Your task to perform on an android device: open app "Facebook Messenger" Image 0: 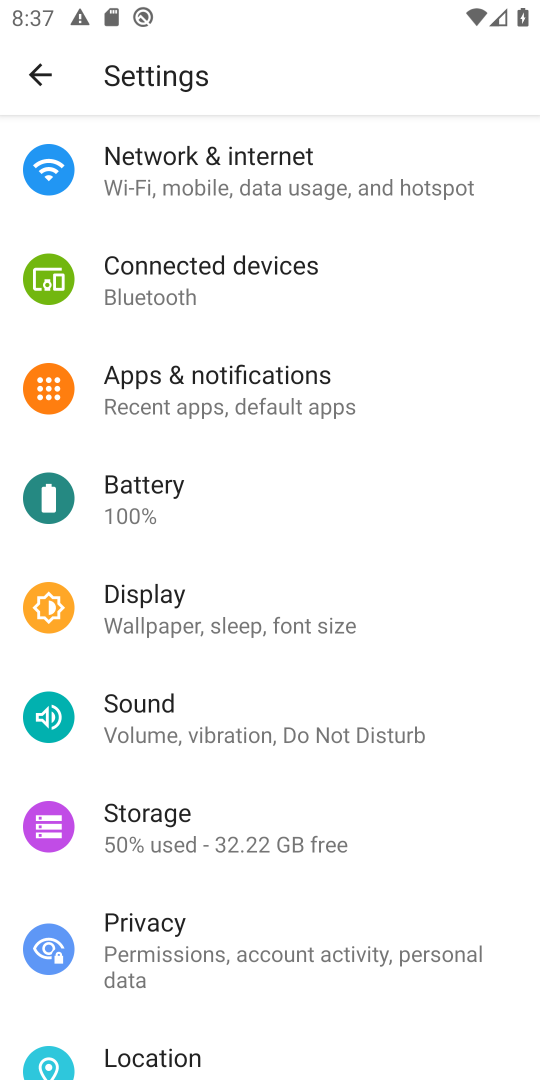
Step 0: press home button
Your task to perform on an android device: open app "Facebook Messenger" Image 1: 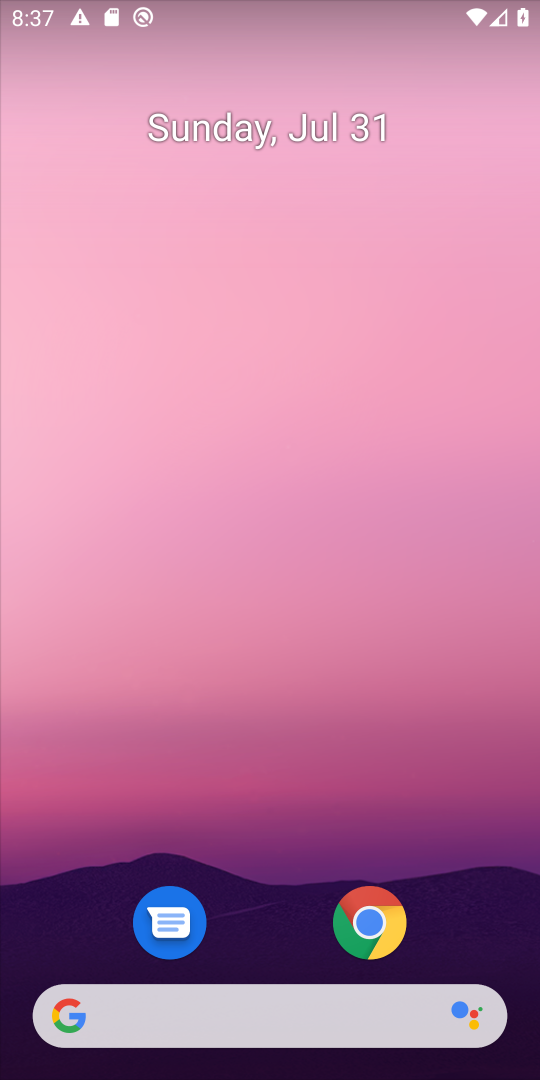
Step 1: drag from (298, 918) to (311, 386)
Your task to perform on an android device: open app "Facebook Messenger" Image 2: 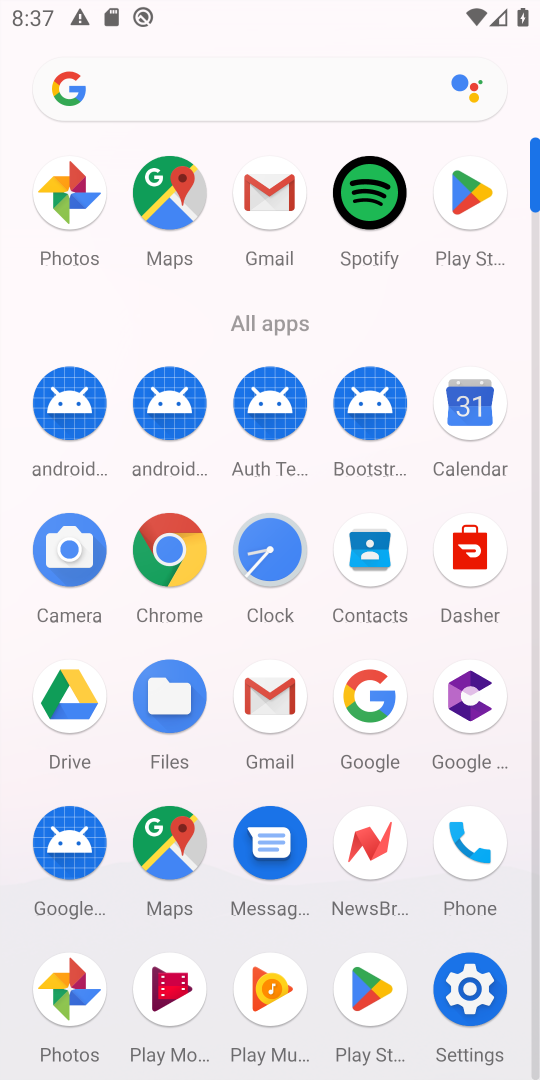
Step 2: drag from (402, 909) to (405, 491)
Your task to perform on an android device: open app "Facebook Messenger" Image 3: 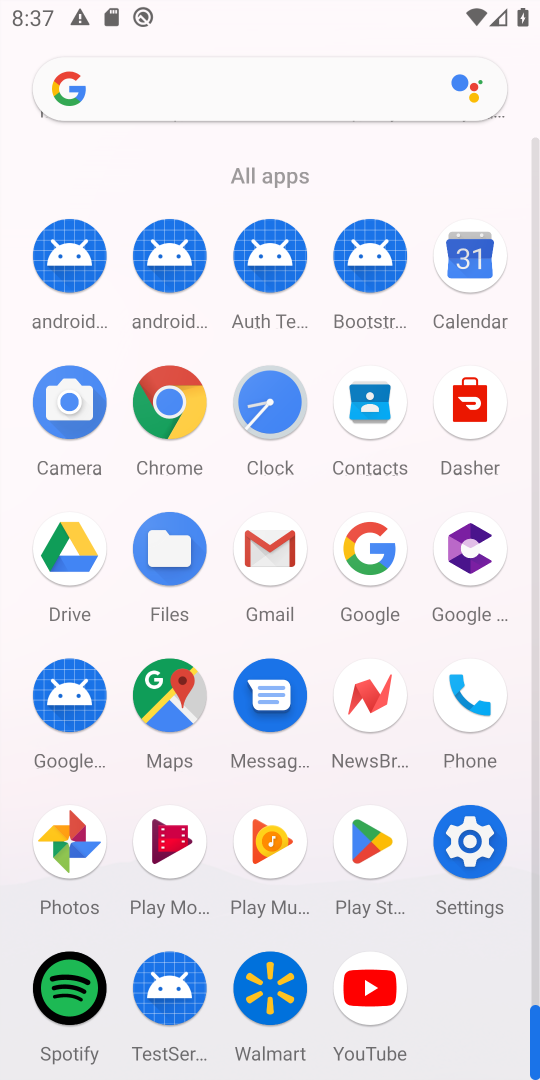
Step 3: click (378, 839)
Your task to perform on an android device: open app "Facebook Messenger" Image 4: 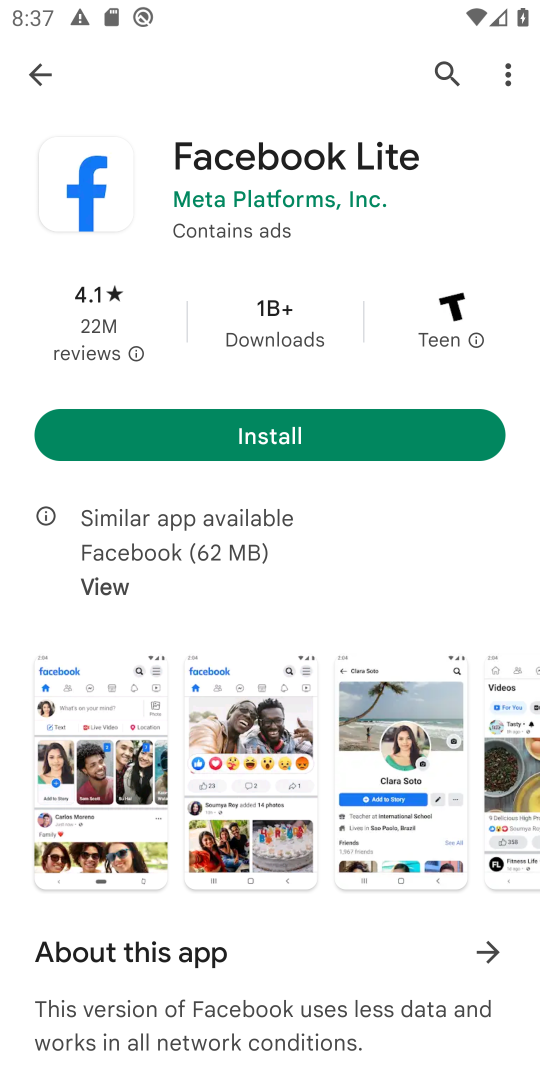
Step 4: click (444, 70)
Your task to perform on an android device: open app "Facebook Messenger" Image 5: 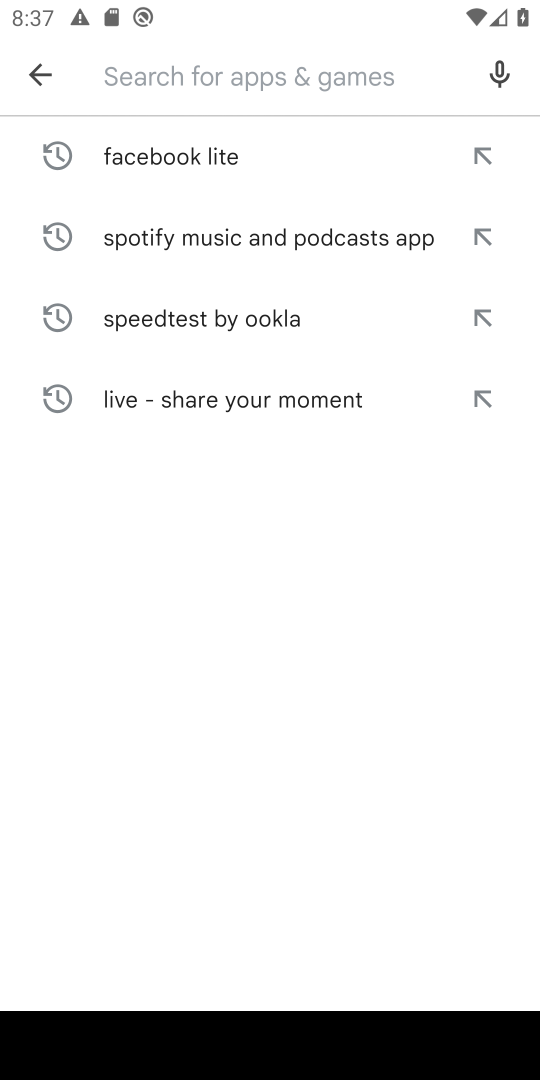
Step 5: type "Facebook Messenger"
Your task to perform on an android device: open app "Facebook Messenger" Image 6: 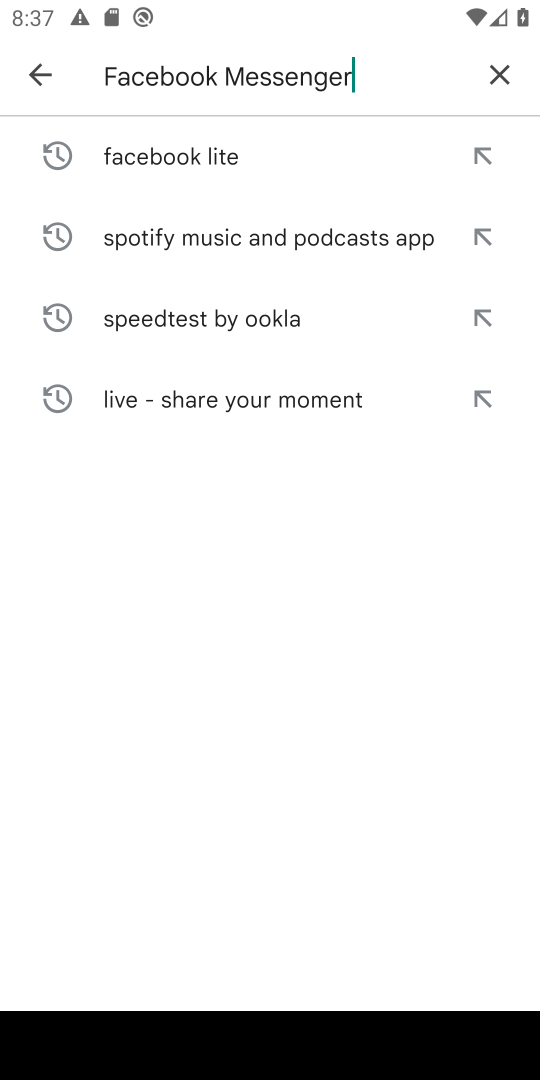
Step 6: type ""
Your task to perform on an android device: open app "Facebook Messenger" Image 7: 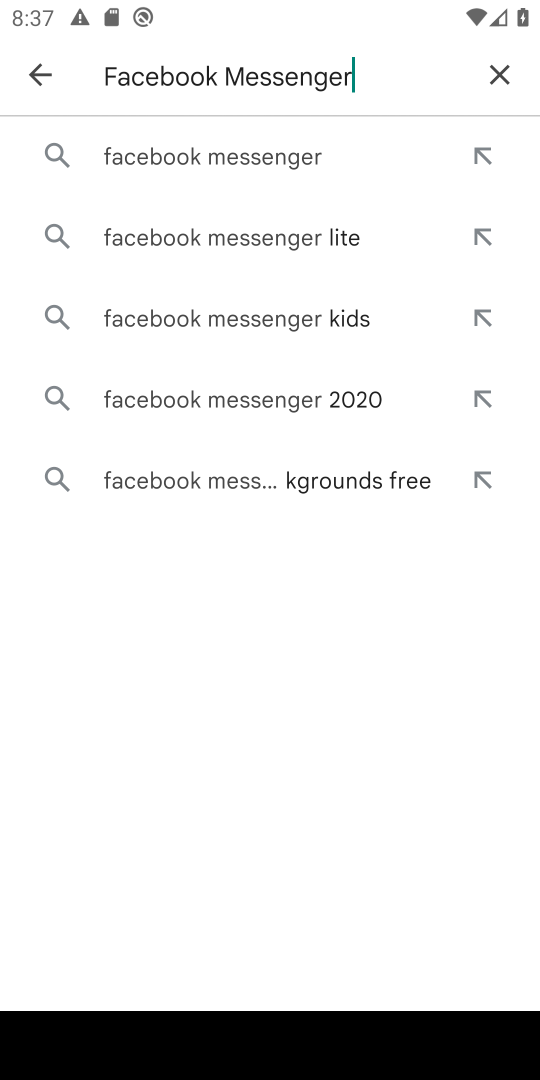
Step 7: click (206, 155)
Your task to perform on an android device: open app "Facebook Messenger" Image 8: 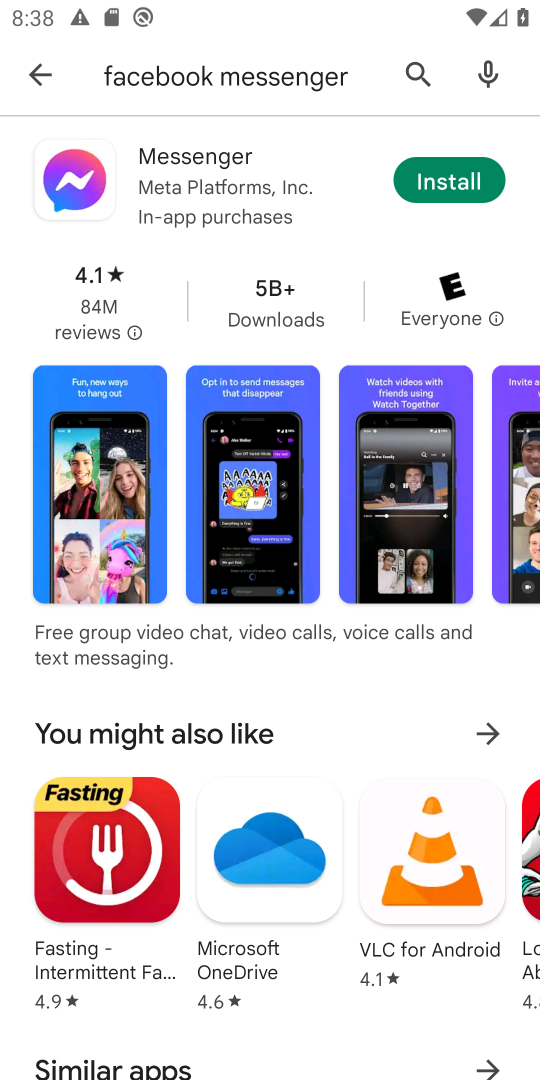
Step 8: task complete